Your task to perform on an android device: uninstall "Move to iOS" Image 0: 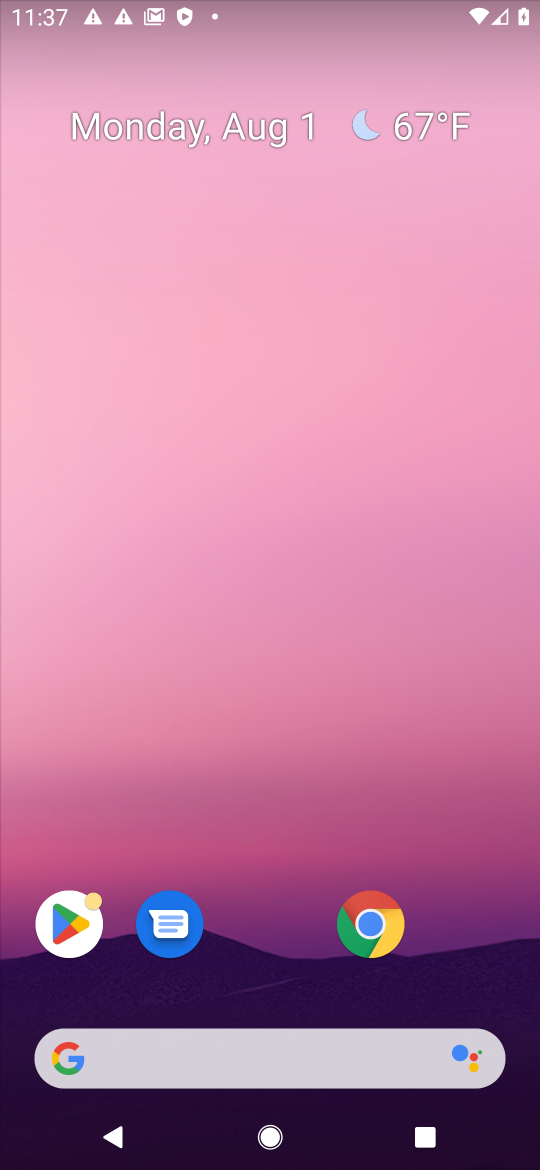
Step 0: press home button
Your task to perform on an android device: uninstall "Move to iOS" Image 1: 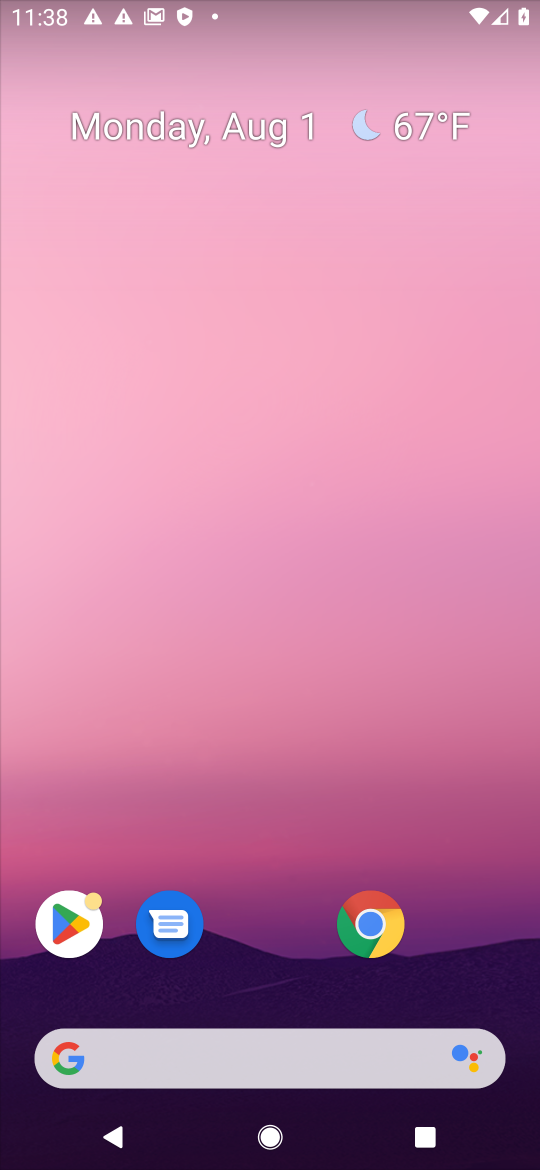
Step 1: click (65, 908)
Your task to perform on an android device: uninstall "Move to iOS" Image 2: 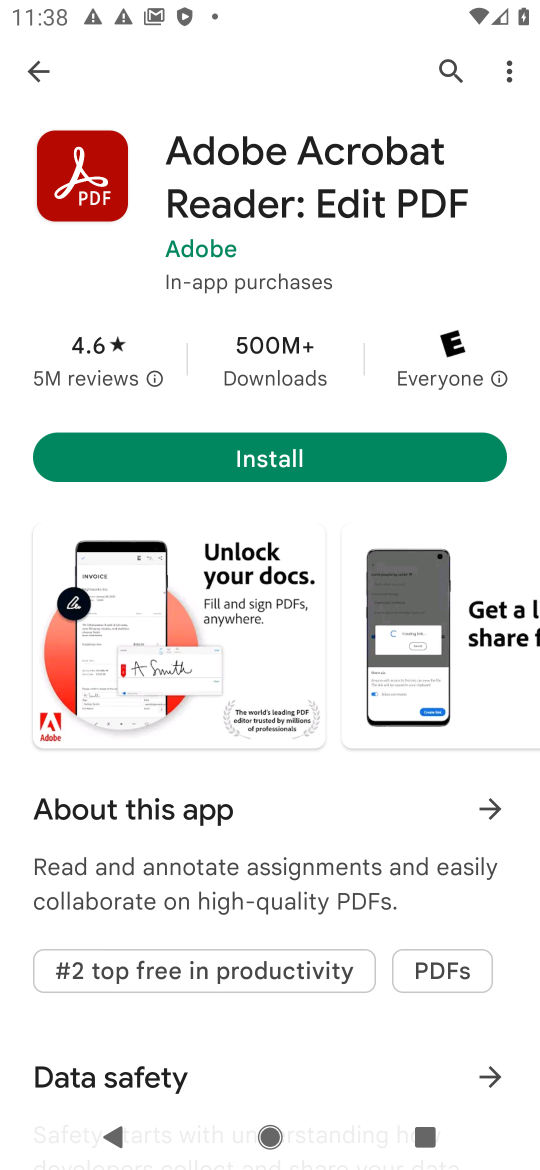
Step 2: click (433, 66)
Your task to perform on an android device: uninstall "Move to iOS" Image 3: 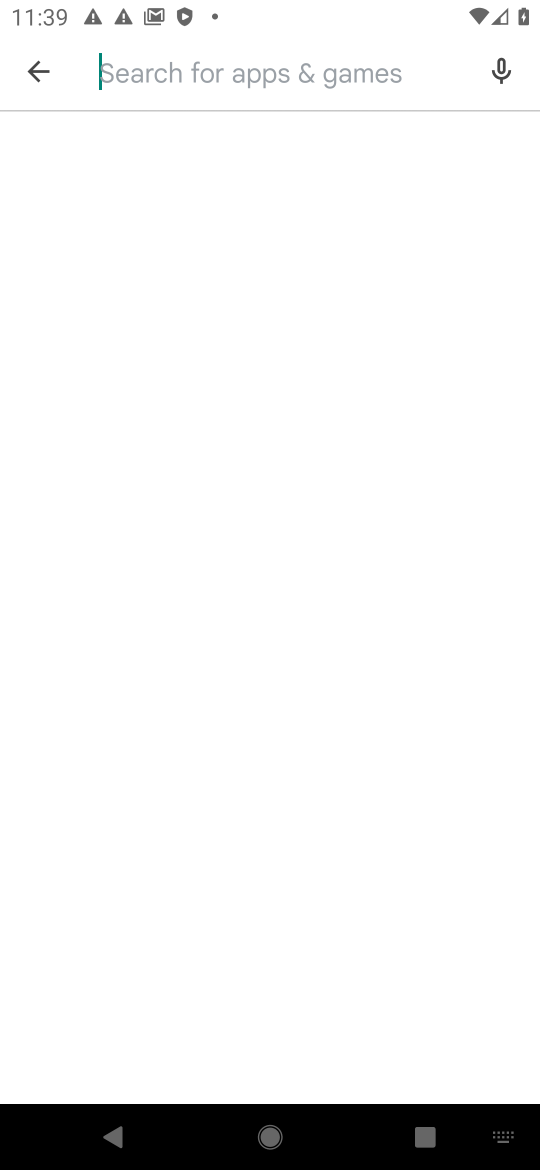
Step 3: type "Move to iOS"
Your task to perform on an android device: uninstall "Move to iOS" Image 4: 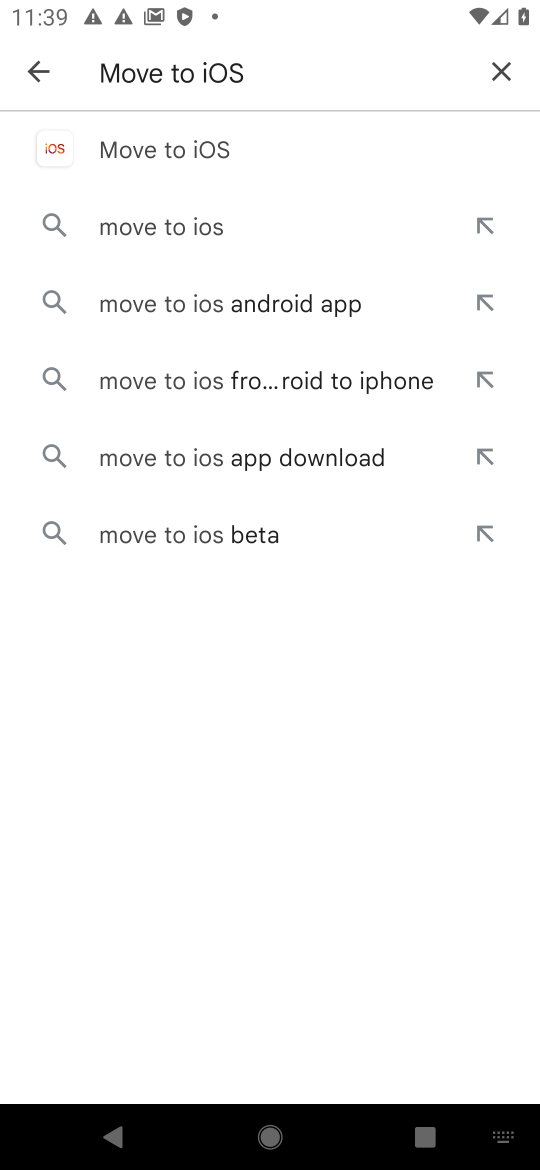
Step 4: click (227, 149)
Your task to perform on an android device: uninstall "Move to iOS" Image 5: 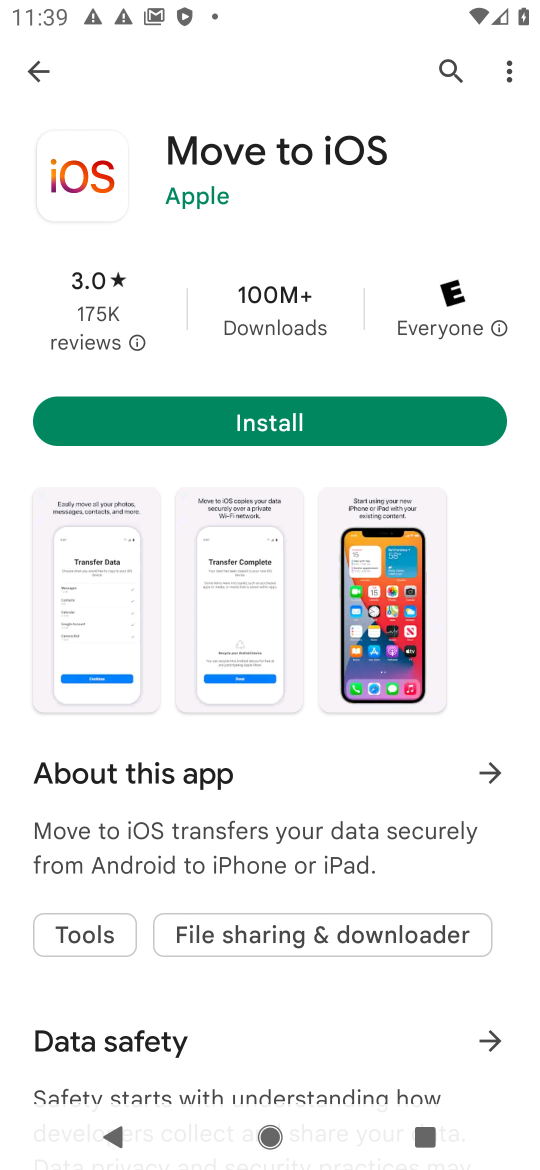
Step 5: task complete